Your task to perform on an android device: Go to Google Image 0: 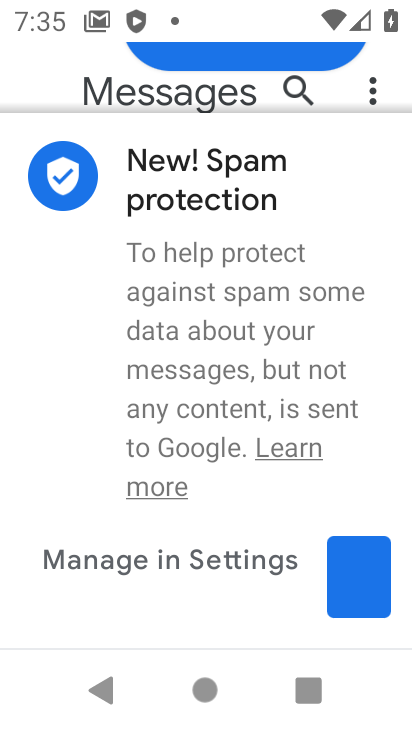
Step 0: press home button
Your task to perform on an android device: Go to Google Image 1: 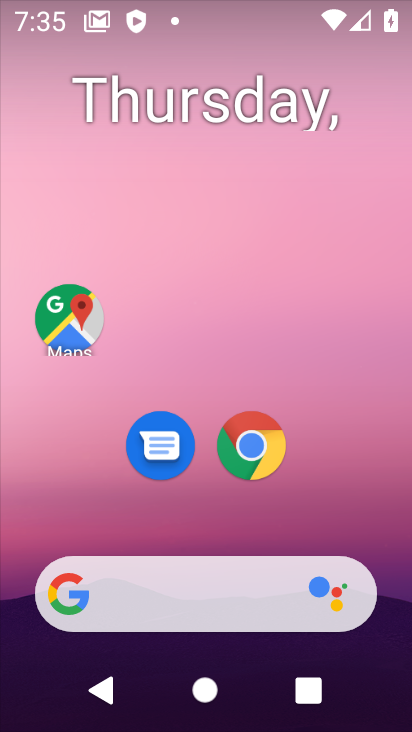
Step 1: click (268, 434)
Your task to perform on an android device: Go to Google Image 2: 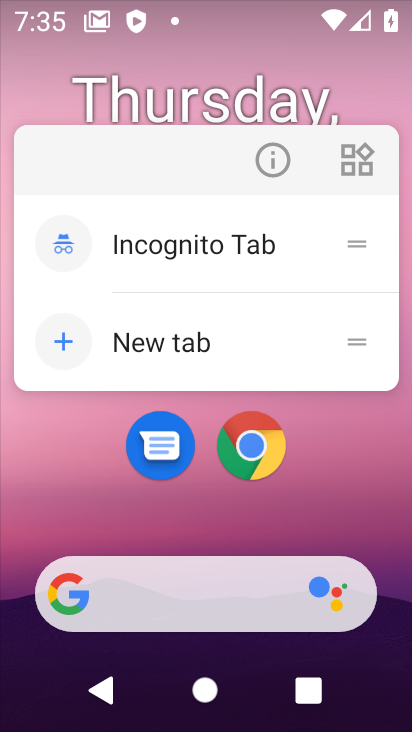
Step 2: click (268, 434)
Your task to perform on an android device: Go to Google Image 3: 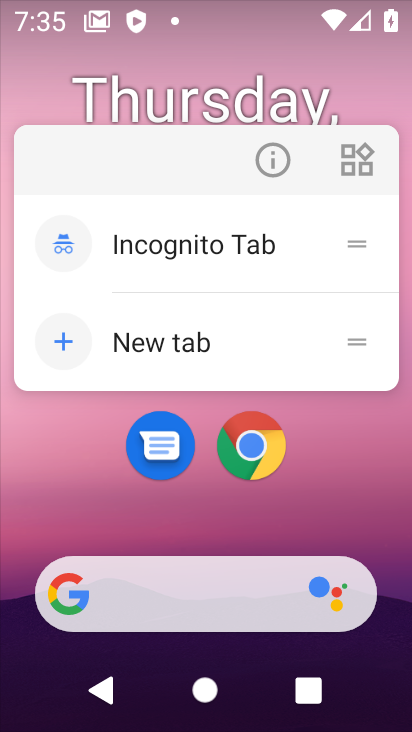
Step 3: click (268, 434)
Your task to perform on an android device: Go to Google Image 4: 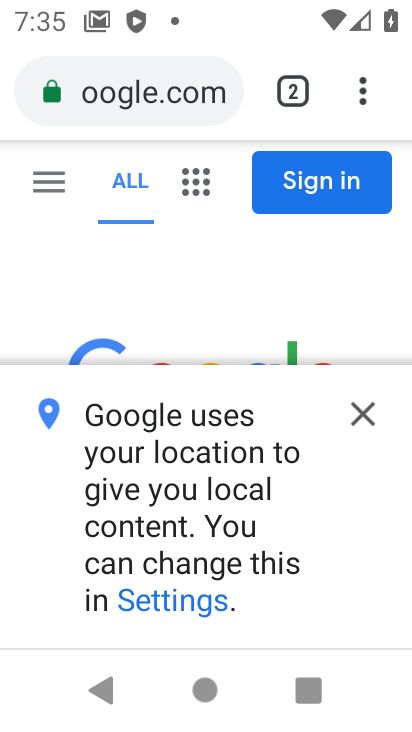
Step 4: task complete